Your task to perform on an android device: toggle show notifications on the lock screen Image 0: 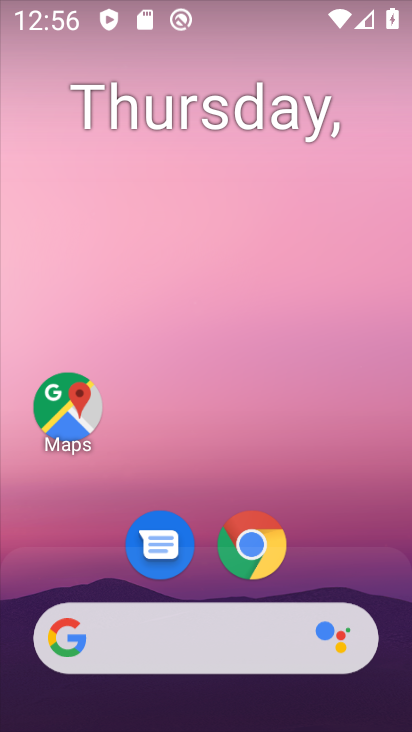
Step 0: drag from (299, 305) to (297, 6)
Your task to perform on an android device: toggle show notifications on the lock screen Image 1: 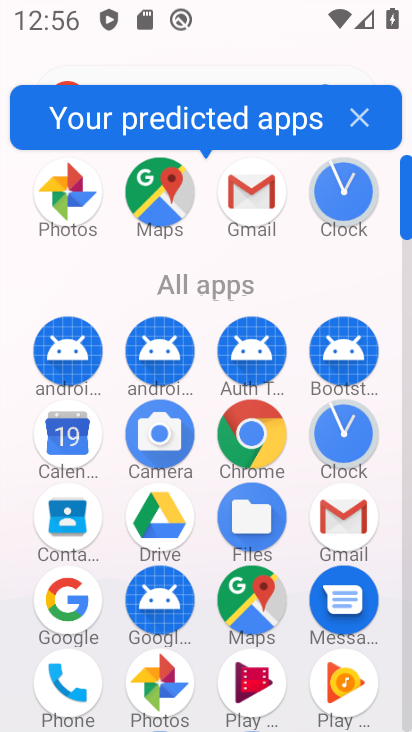
Step 1: drag from (196, 461) to (195, 96)
Your task to perform on an android device: toggle show notifications on the lock screen Image 2: 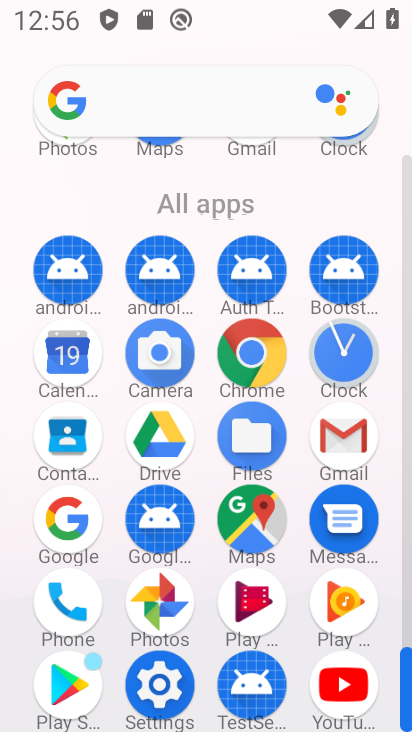
Step 2: click (143, 693)
Your task to perform on an android device: toggle show notifications on the lock screen Image 3: 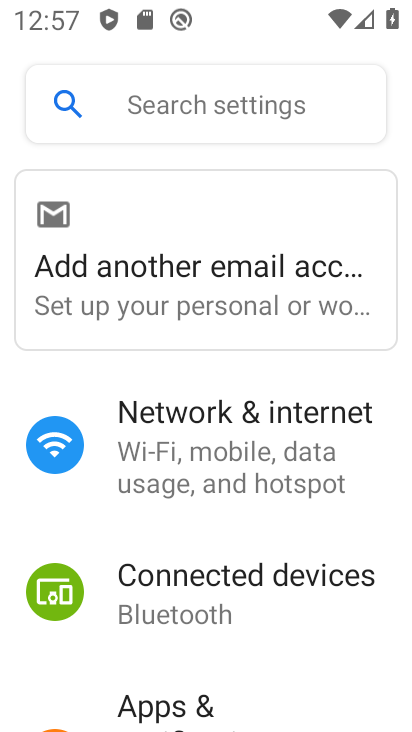
Step 3: drag from (196, 603) to (172, 216)
Your task to perform on an android device: toggle show notifications on the lock screen Image 4: 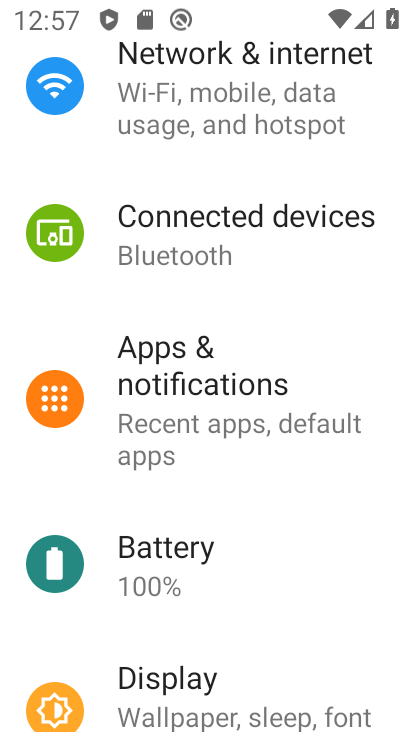
Step 4: click (161, 410)
Your task to perform on an android device: toggle show notifications on the lock screen Image 5: 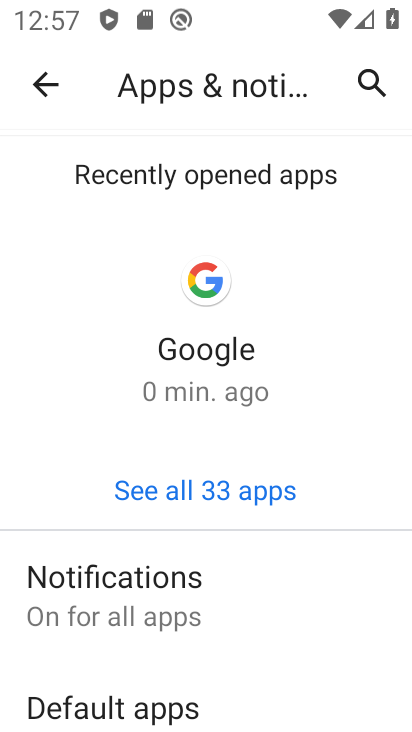
Step 5: click (104, 594)
Your task to perform on an android device: toggle show notifications on the lock screen Image 6: 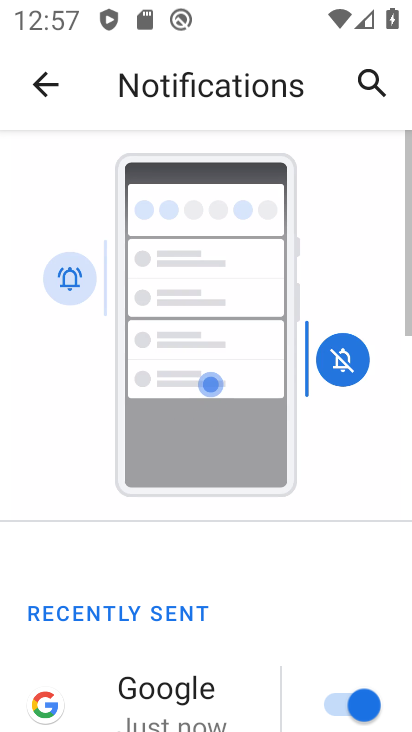
Step 6: drag from (105, 643) to (200, 37)
Your task to perform on an android device: toggle show notifications on the lock screen Image 7: 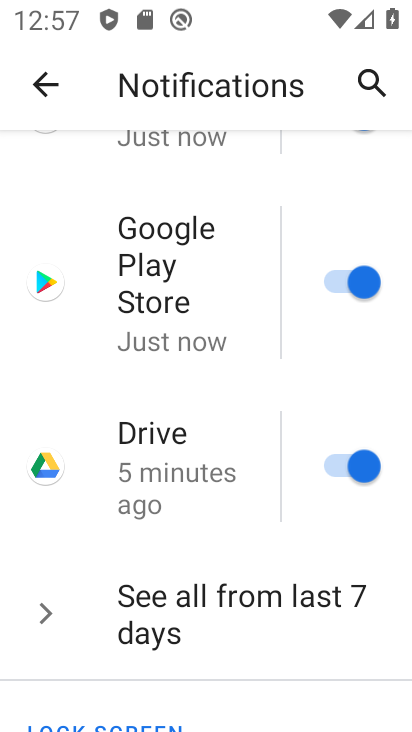
Step 7: drag from (141, 647) to (210, 233)
Your task to perform on an android device: toggle show notifications on the lock screen Image 8: 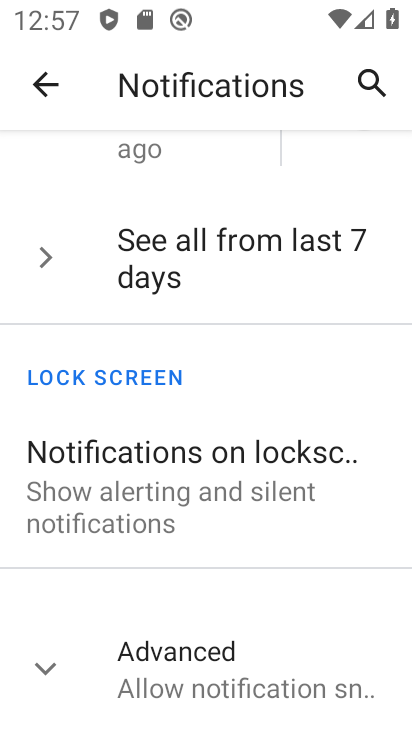
Step 8: click (130, 500)
Your task to perform on an android device: toggle show notifications on the lock screen Image 9: 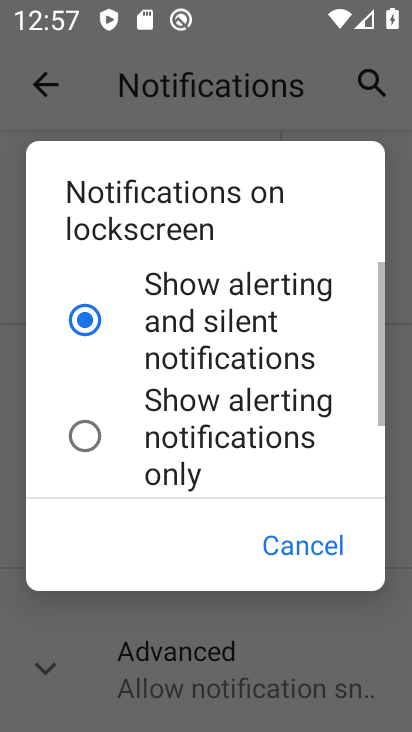
Step 9: click (174, 405)
Your task to perform on an android device: toggle show notifications on the lock screen Image 10: 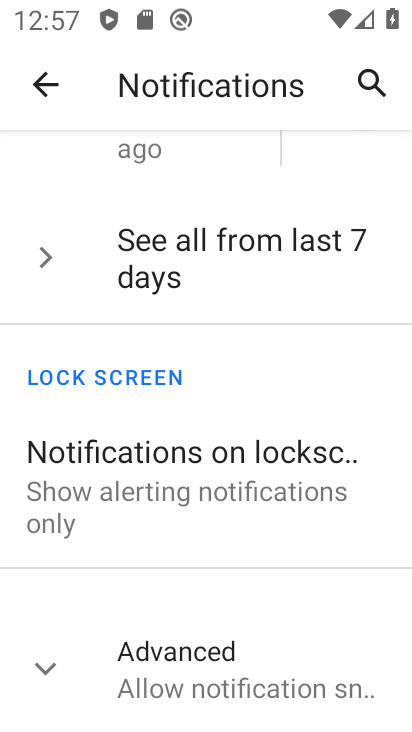
Step 10: task complete